Your task to perform on an android device: open a new tab in the chrome app Image 0: 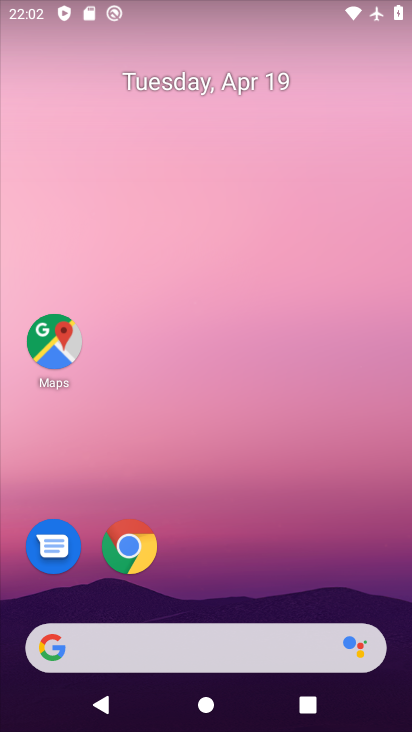
Step 0: drag from (211, 610) to (219, 94)
Your task to perform on an android device: open a new tab in the chrome app Image 1: 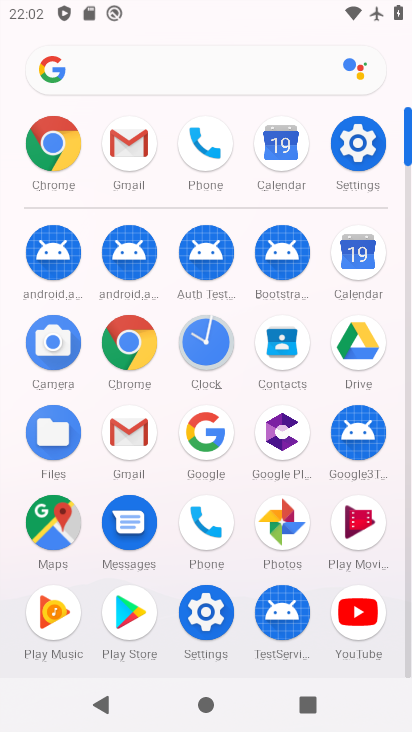
Step 1: click (117, 353)
Your task to perform on an android device: open a new tab in the chrome app Image 2: 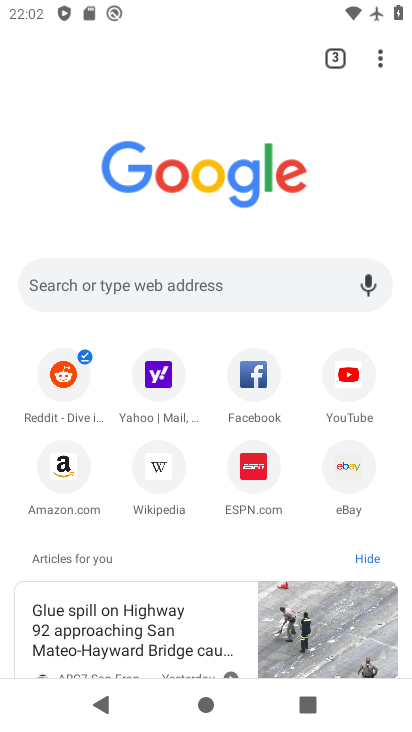
Step 2: click (328, 52)
Your task to perform on an android device: open a new tab in the chrome app Image 3: 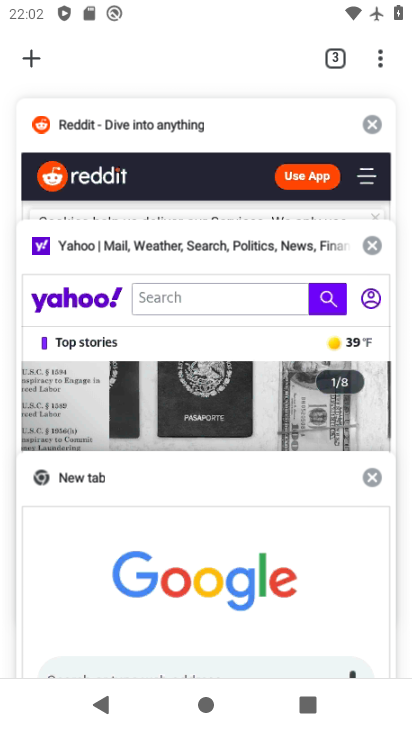
Step 3: click (29, 63)
Your task to perform on an android device: open a new tab in the chrome app Image 4: 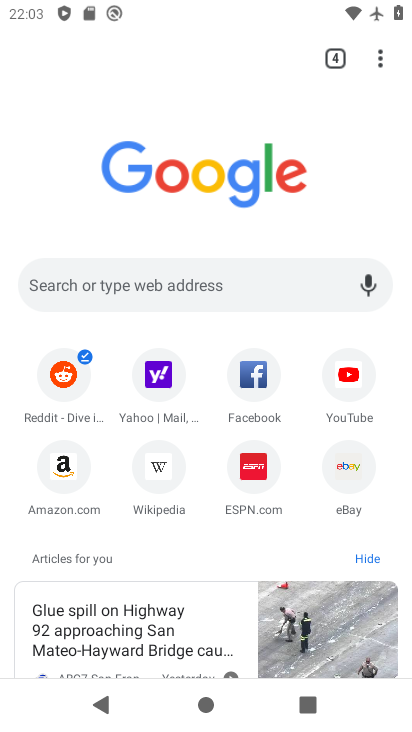
Step 4: task complete